Your task to perform on an android device: Go to Amazon Image 0: 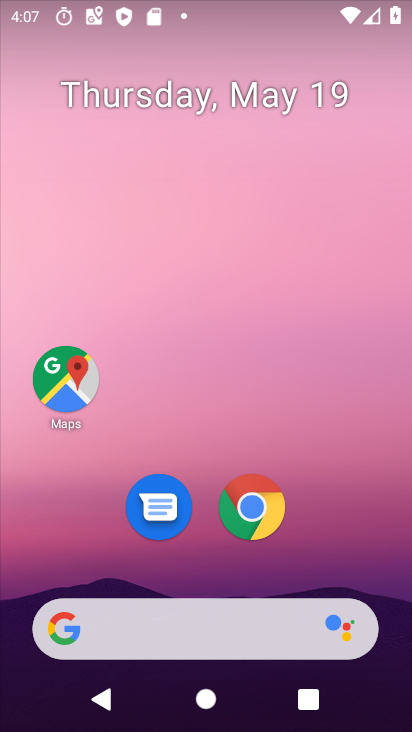
Step 0: click (255, 507)
Your task to perform on an android device: Go to Amazon Image 1: 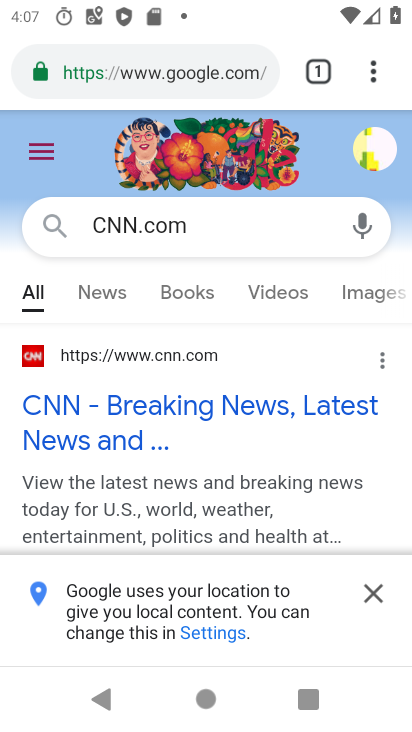
Step 1: type " Amazon"
Your task to perform on an android device: Go to Amazon Image 2: 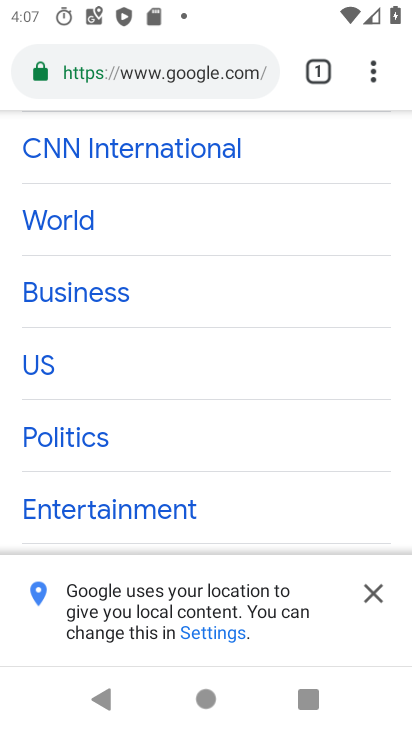
Step 2: click (256, 77)
Your task to perform on an android device: Go to Amazon Image 3: 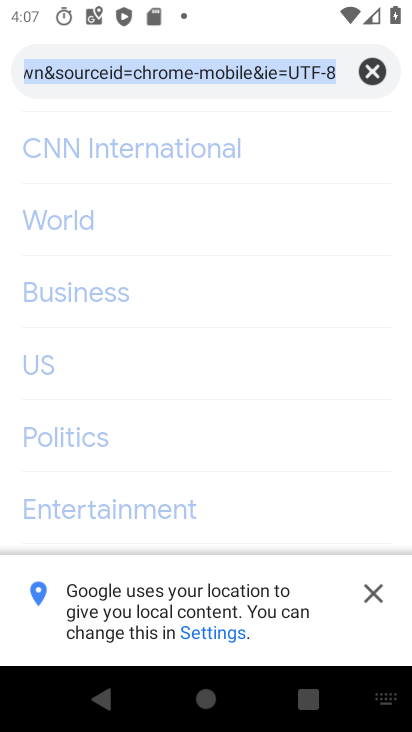
Step 3: click (359, 72)
Your task to perform on an android device: Go to Amazon Image 4: 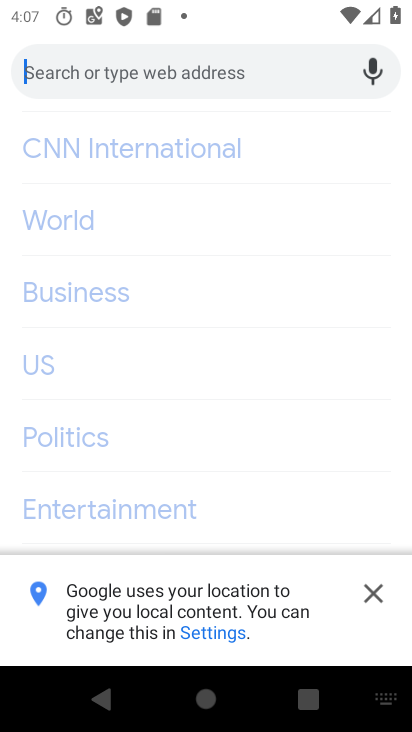
Step 4: type " Amazon"
Your task to perform on an android device: Go to Amazon Image 5: 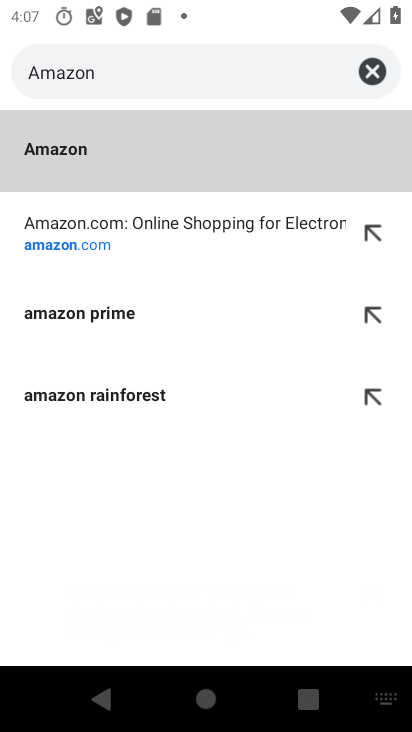
Step 5: click (57, 162)
Your task to perform on an android device: Go to Amazon Image 6: 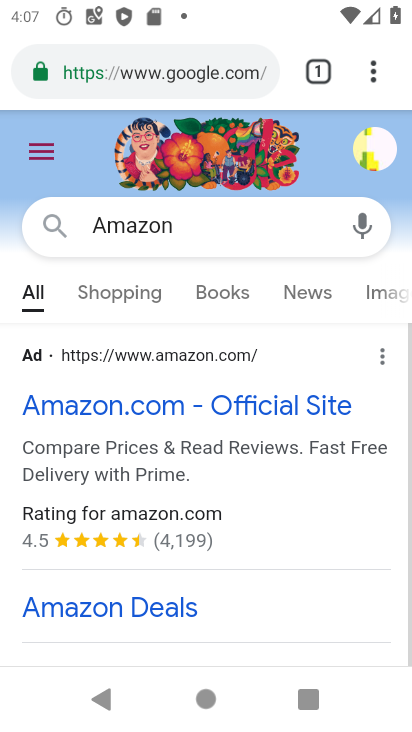
Step 6: task complete